Your task to perform on an android device: Show me popular games on the Play Store Image 0: 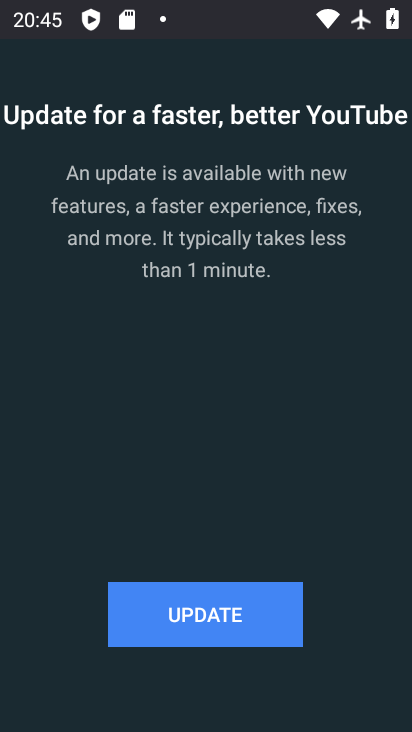
Step 0: press home button
Your task to perform on an android device: Show me popular games on the Play Store Image 1: 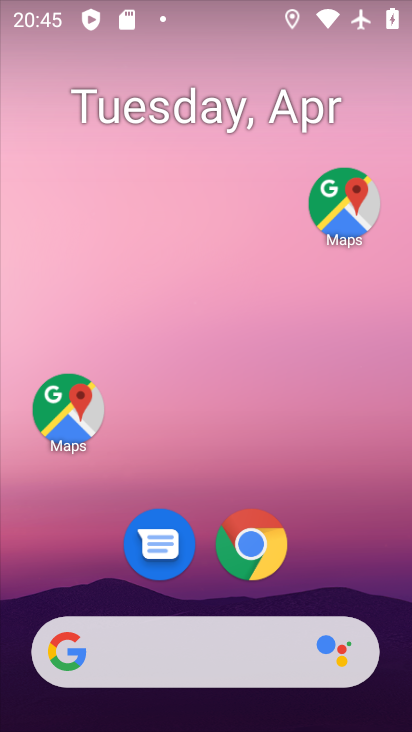
Step 1: drag from (191, 617) to (319, 147)
Your task to perform on an android device: Show me popular games on the Play Store Image 2: 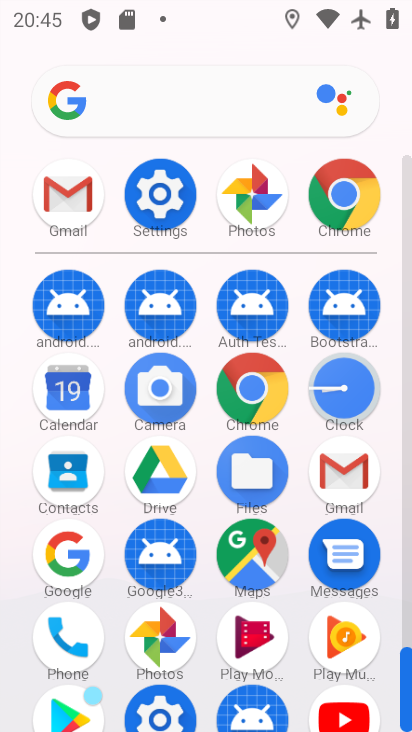
Step 2: drag from (131, 556) to (257, 251)
Your task to perform on an android device: Show me popular games on the Play Store Image 3: 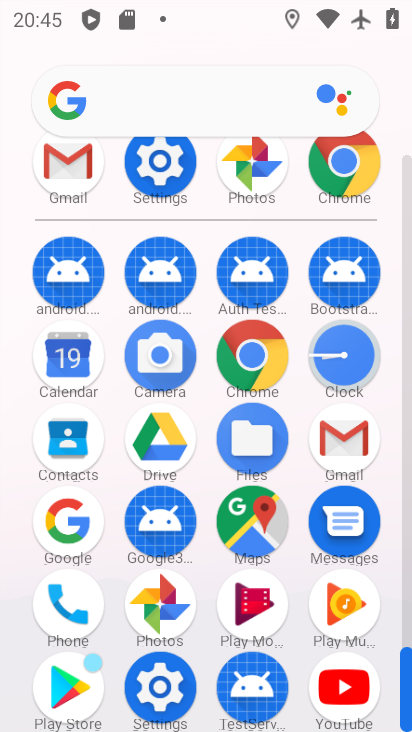
Step 3: click (60, 684)
Your task to perform on an android device: Show me popular games on the Play Store Image 4: 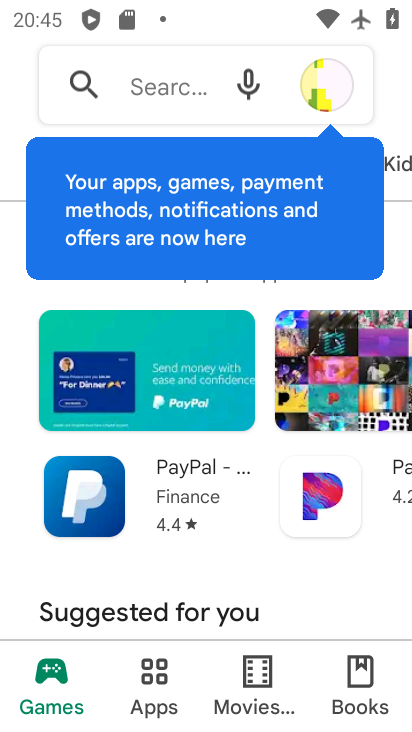
Step 4: click (67, 700)
Your task to perform on an android device: Show me popular games on the Play Store Image 5: 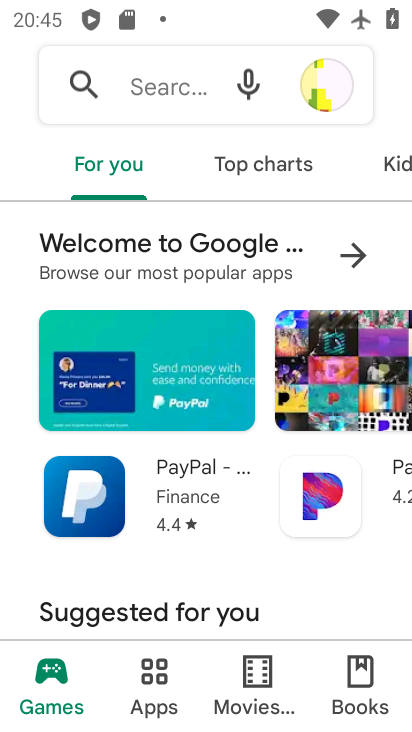
Step 5: drag from (333, 174) to (103, 184)
Your task to perform on an android device: Show me popular games on the Play Store Image 6: 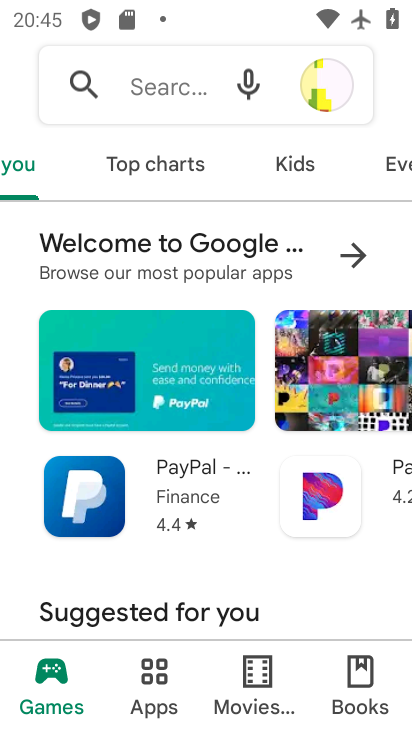
Step 6: drag from (341, 179) to (51, 211)
Your task to perform on an android device: Show me popular games on the Play Store Image 7: 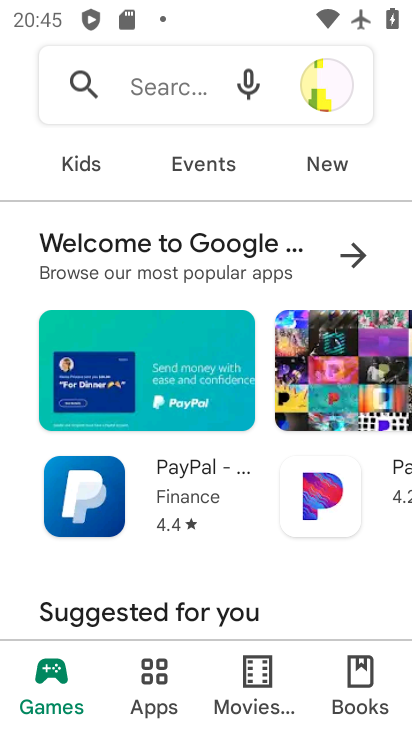
Step 7: drag from (368, 165) to (141, 174)
Your task to perform on an android device: Show me popular games on the Play Store Image 8: 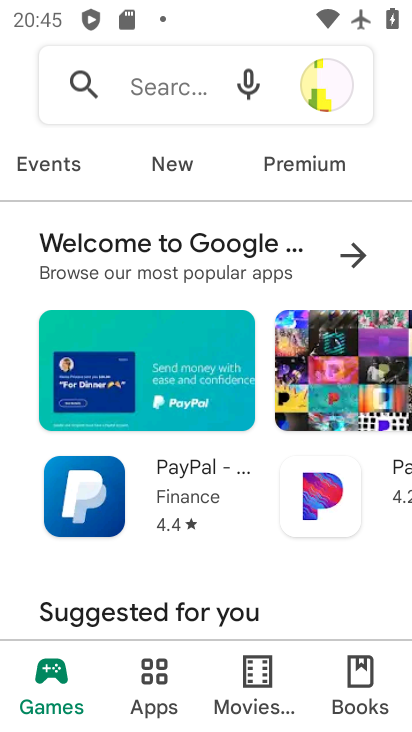
Step 8: drag from (286, 171) to (119, 198)
Your task to perform on an android device: Show me popular games on the Play Store Image 9: 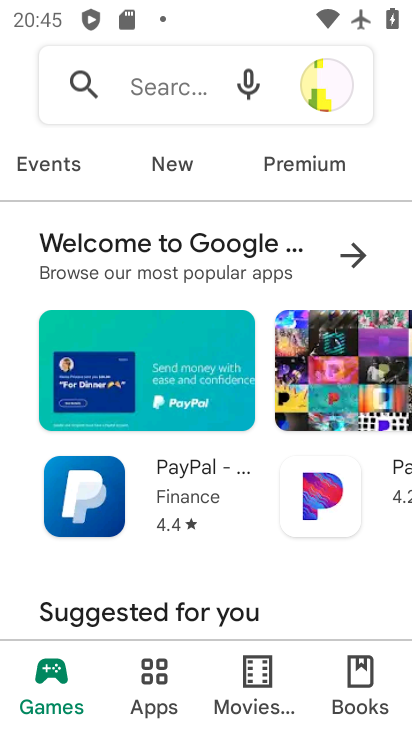
Step 9: drag from (362, 159) to (24, 219)
Your task to perform on an android device: Show me popular games on the Play Store Image 10: 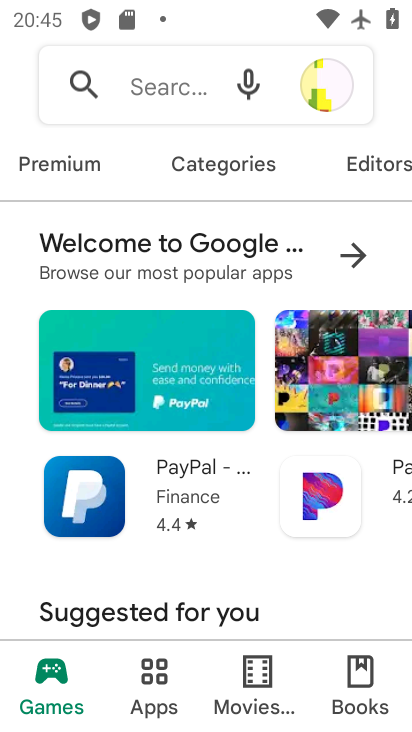
Step 10: click (207, 575)
Your task to perform on an android device: Show me popular games on the Play Store Image 11: 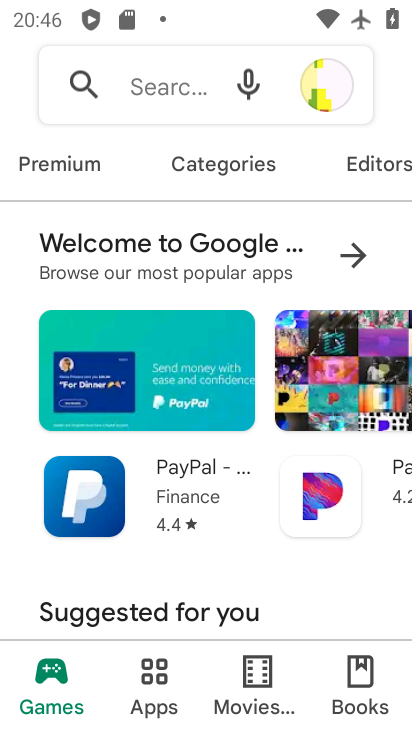
Step 11: drag from (353, 171) to (51, 189)
Your task to perform on an android device: Show me popular games on the Play Store Image 12: 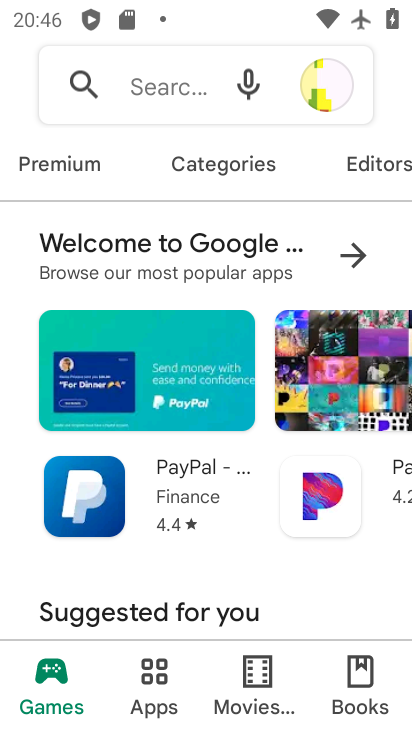
Step 12: drag from (386, 171) to (119, 181)
Your task to perform on an android device: Show me popular games on the Play Store Image 13: 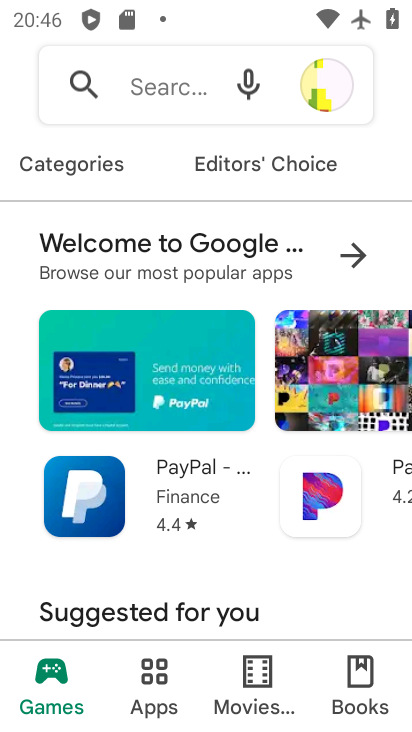
Step 13: drag from (355, 157) to (111, 173)
Your task to perform on an android device: Show me popular games on the Play Store Image 14: 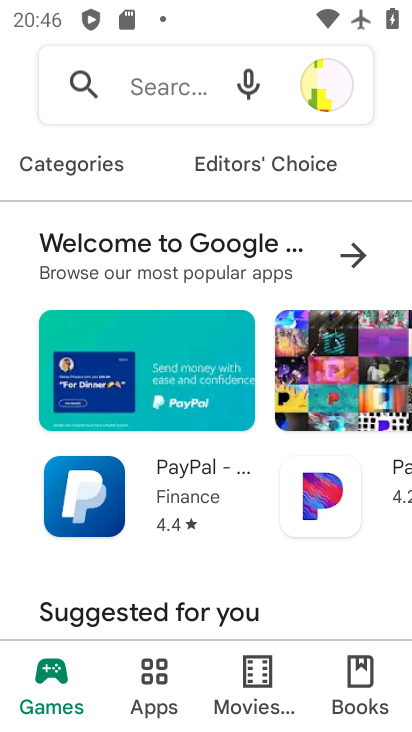
Step 14: drag from (208, 471) to (242, 181)
Your task to perform on an android device: Show me popular games on the Play Store Image 15: 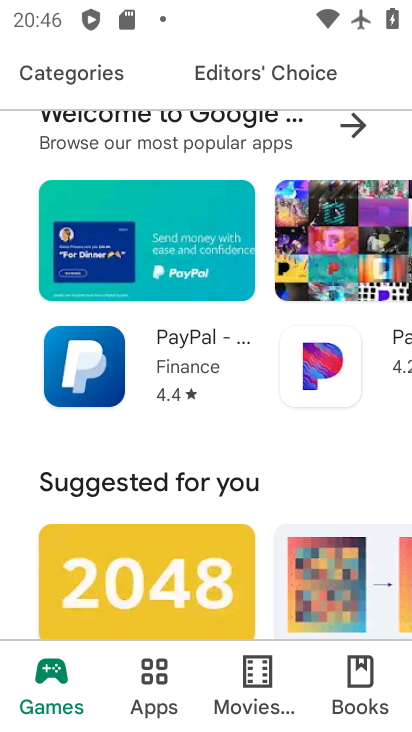
Step 15: drag from (151, 585) to (301, 126)
Your task to perform on an android device: Show me popular games on the Play Store Image 16: 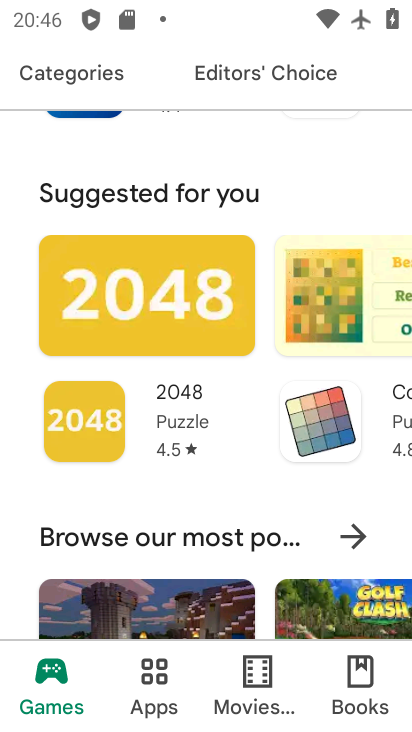
Step 16: drag from (186, 605) to (297, 74)
Your task to perform on an android device: Show me popular games on the Play Store Image 17: 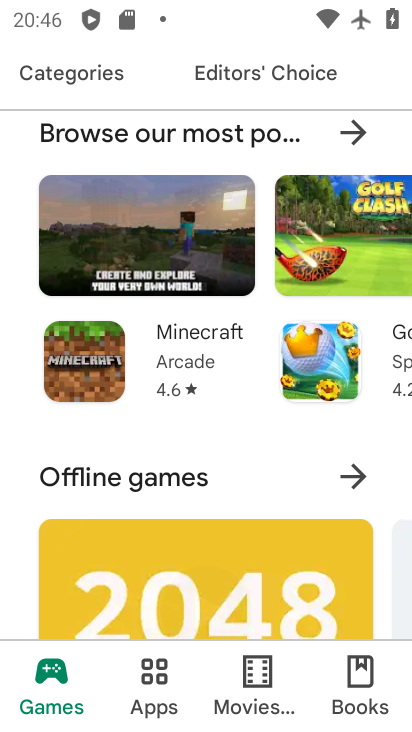
Step 17: click (347, 130)
Your task to perform on an android device: Show me popular games on the Play Store Image 18: 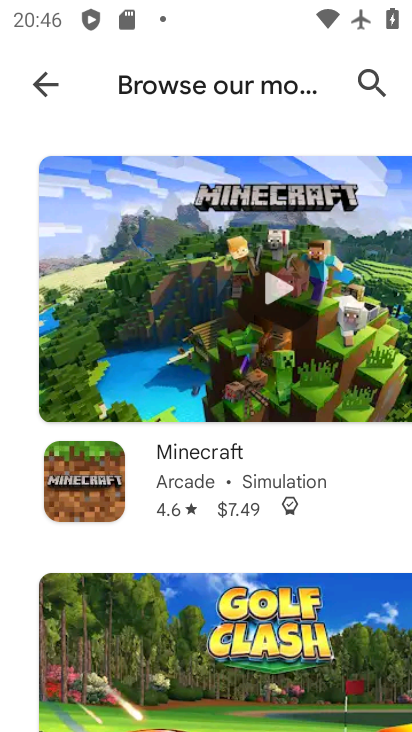
Step 18: task complete